Your task to perform on an android device: change alarm snooze length Image 0: 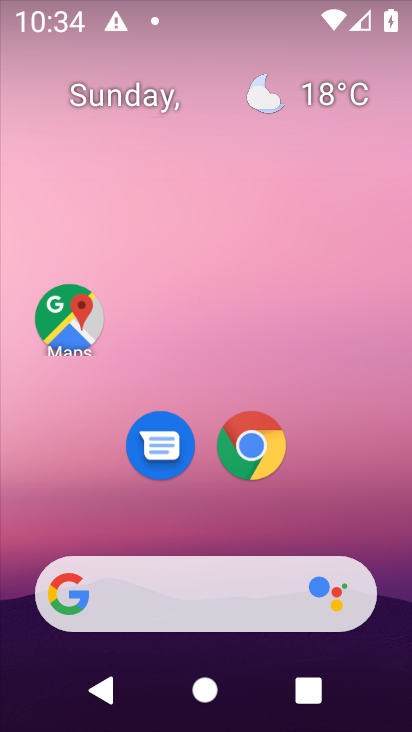
Step 0: drag from (178, 252) to (157, 118)
Your task to perform on an android device: change alarm snooze length Image 1: 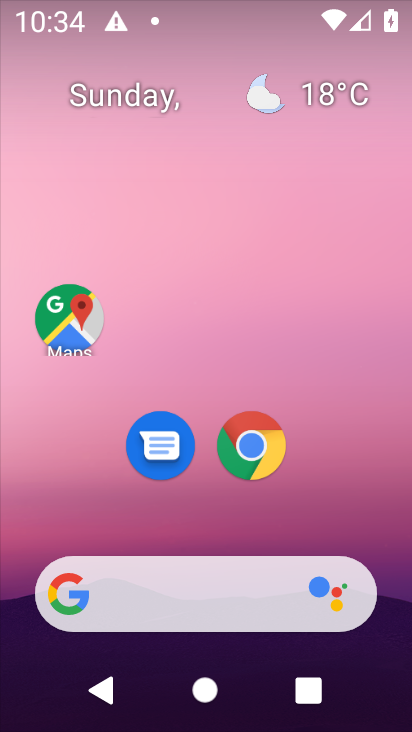
Step 1: drag from (205, 603) to (346, 15)
Your task to perform on an android device: change alarm snooze length Image 2: 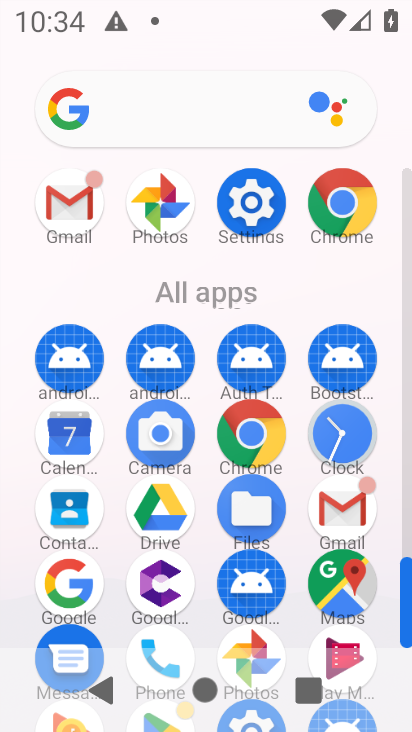
Step 2: click (334, 443)
Your task to perform on an android device: change alarm snooze length Image 3: 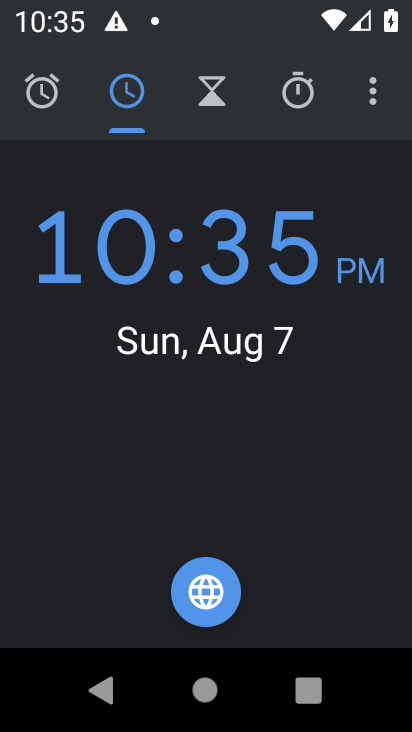
Step 3: click (372, 102)
Your task to perform on an android device: change alarm snooze length Image 4: 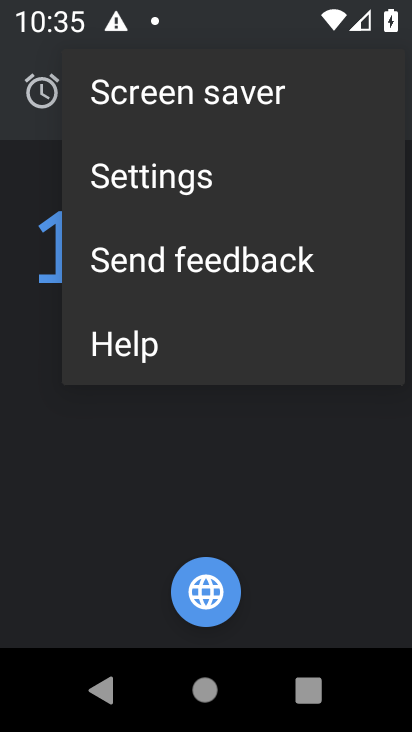
Step 4: click (232, 179)
Your task to perform on an android device: change alarm snooze length Image 5: 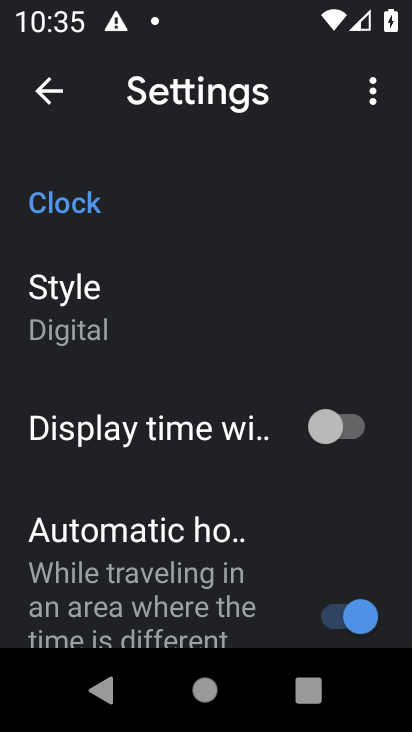
Step 5: drag from (223, 428) to (233, 43)
Your task to perform on an android device: change alarm snooze length Image 6: 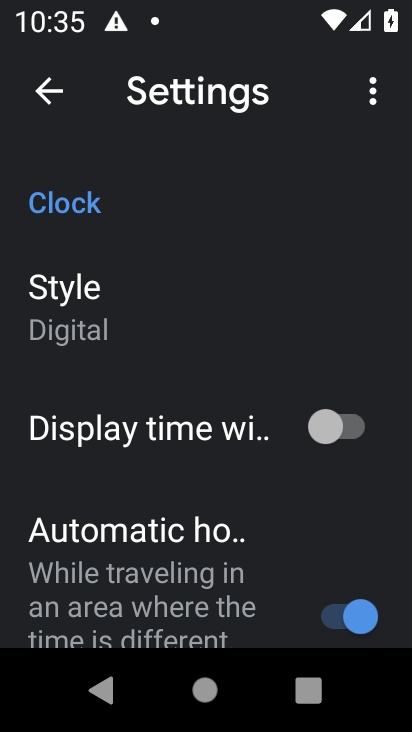
Step 6: drag from (292, 525) to (297, 46)
Your task to perform on an android device: change alarm snooze length Image 7: 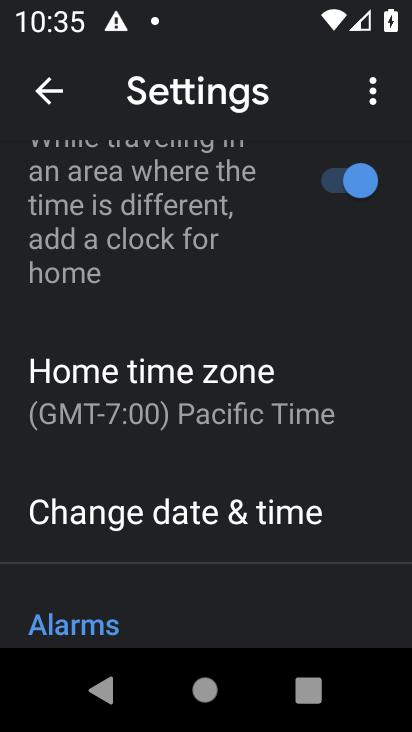
Step 7: click (287, 62)
Your task to perform on an android device: change alarm snooze length Image 8: 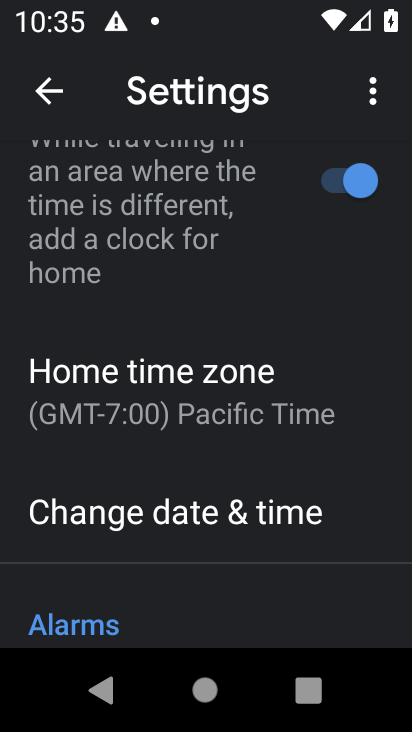
Step 8: click (184, 251)
Your task to perform on an android device: change alarm snooze length Image 9: 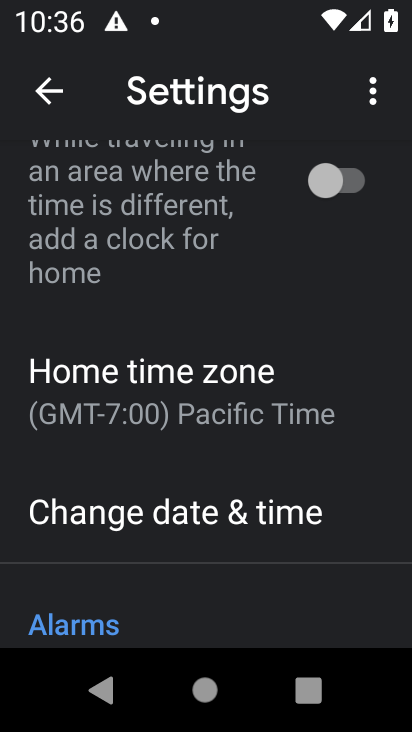
Step 9: drag from (237, 444) to (236, 116)
Your task to perform on an android device: change alarm snooze length Image 10: 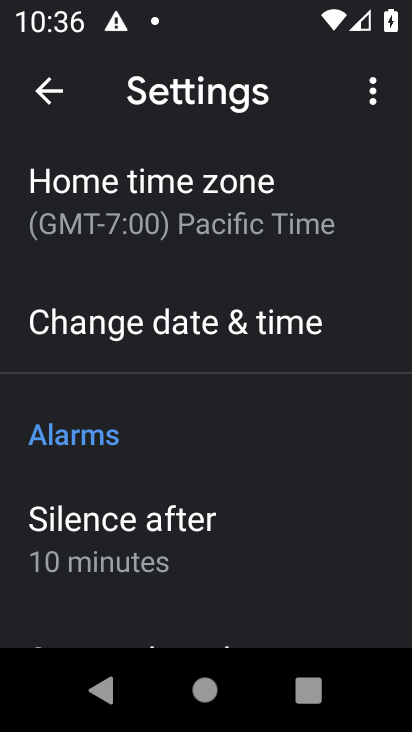
Step 10: drag from (254, 578) to (260, 51)
Your task to perform on an android device: change alarm snooze length Image 11: 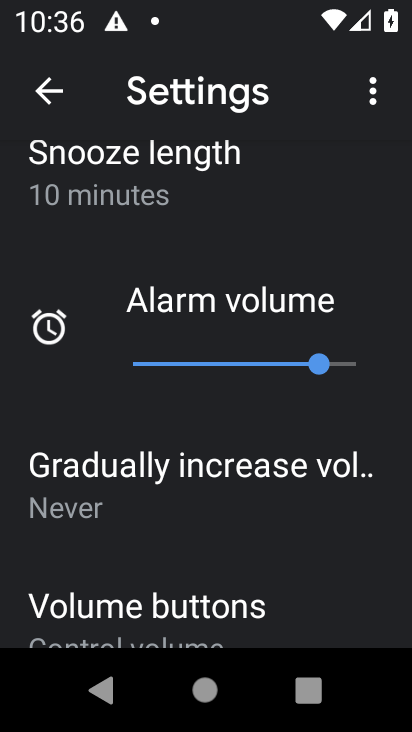
Step 11: click (206, 173)
Your task to perform on an android device: change alarm snooze length Image 12: 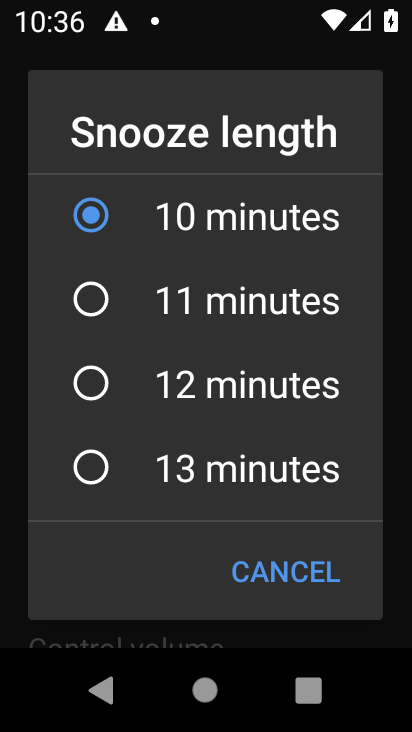
Step 12: click (140, 490)
Your task to perform on an android device: change alarm snooze length Image 13: 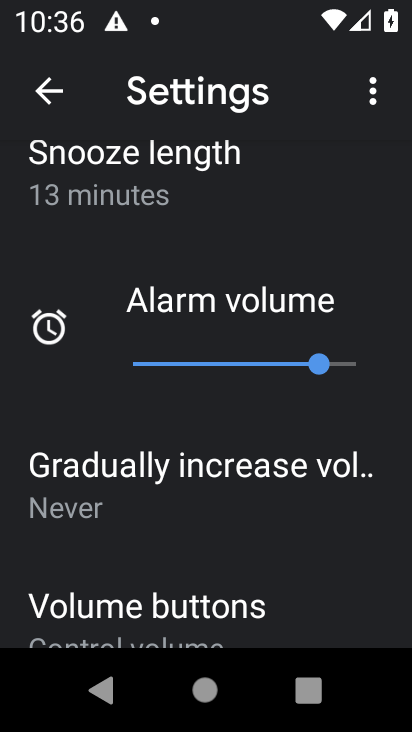
Step 13: task complete